Your task to perform on an android device: check out phone information Image 0: 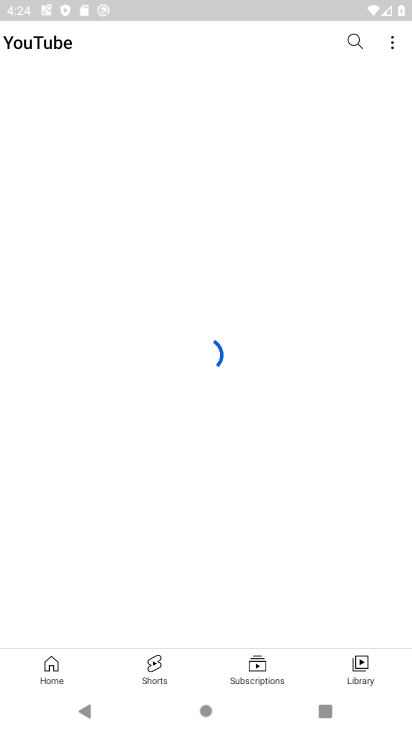
Step 0: press home button
Your task to perform on an android device: check out phone information Image 1: 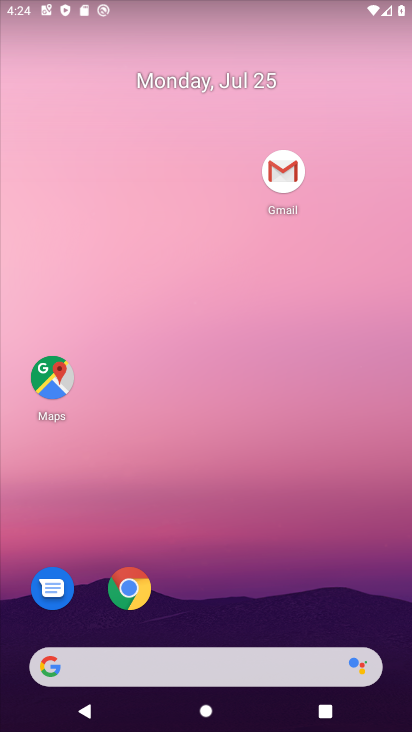
Step 1: drag from (271, 554) to (359, 204)
Your task to perform on an android device: check out phone information Image 2: 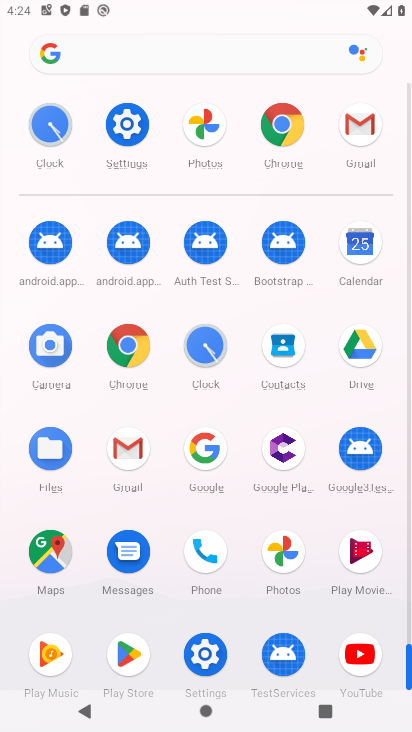
Step 2: click (204, 540)
Your task to perform on an android device: check out phone information Image 3: 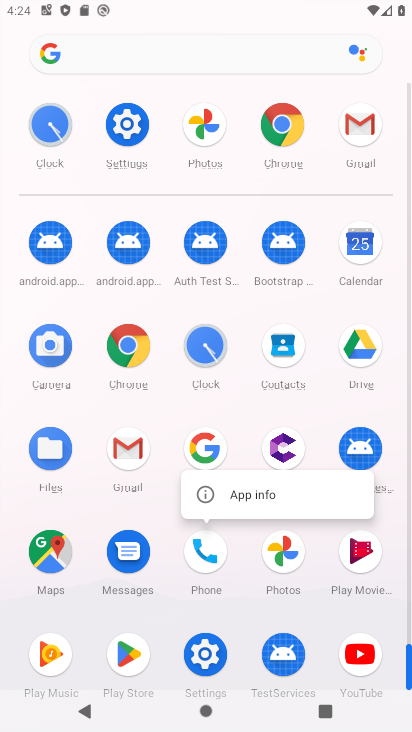
Step 3: click (308, 485)
Your task to perform on an android device: check out phone information Image 4: 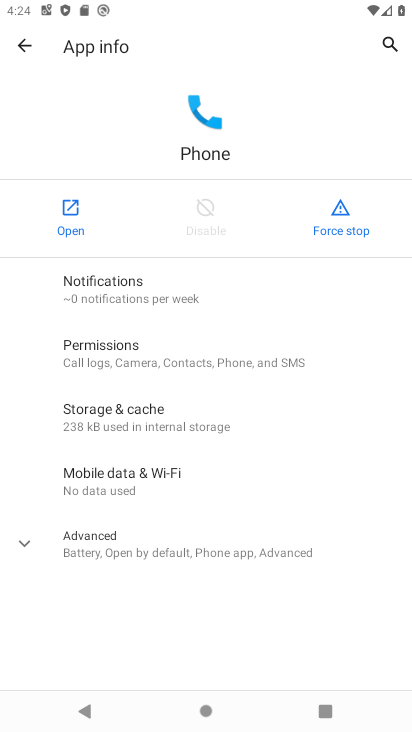
Step 4: task complete